Your task to perform on an android device: set default search engine in the chrome app Image 0: 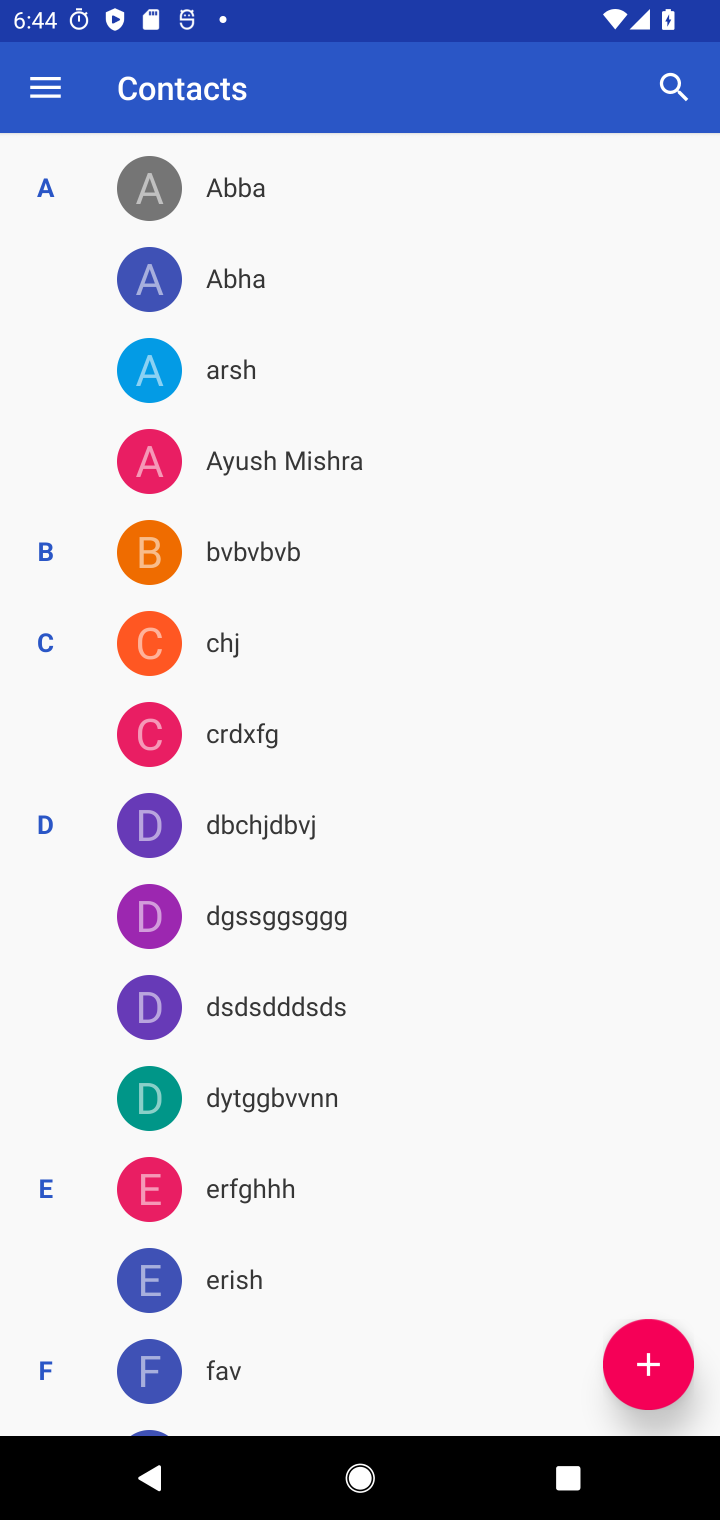
Step 0: press home button
Your task to perform on an android device: set default search engine in the chrome app Image 1: 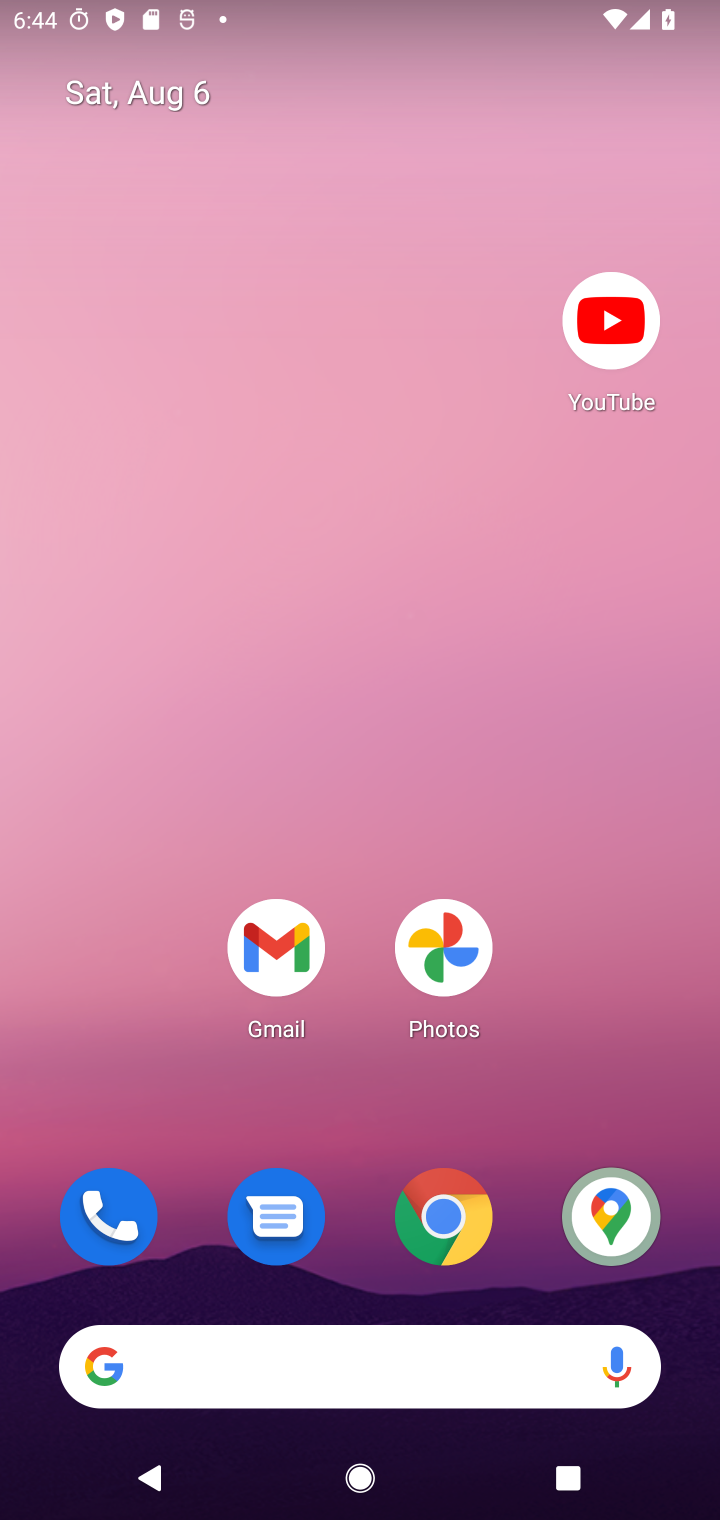
Step 1: drag from (510, 498) to (337, 28)
Your task to perform on an android device: set default search engine in the chrome app Image 2: 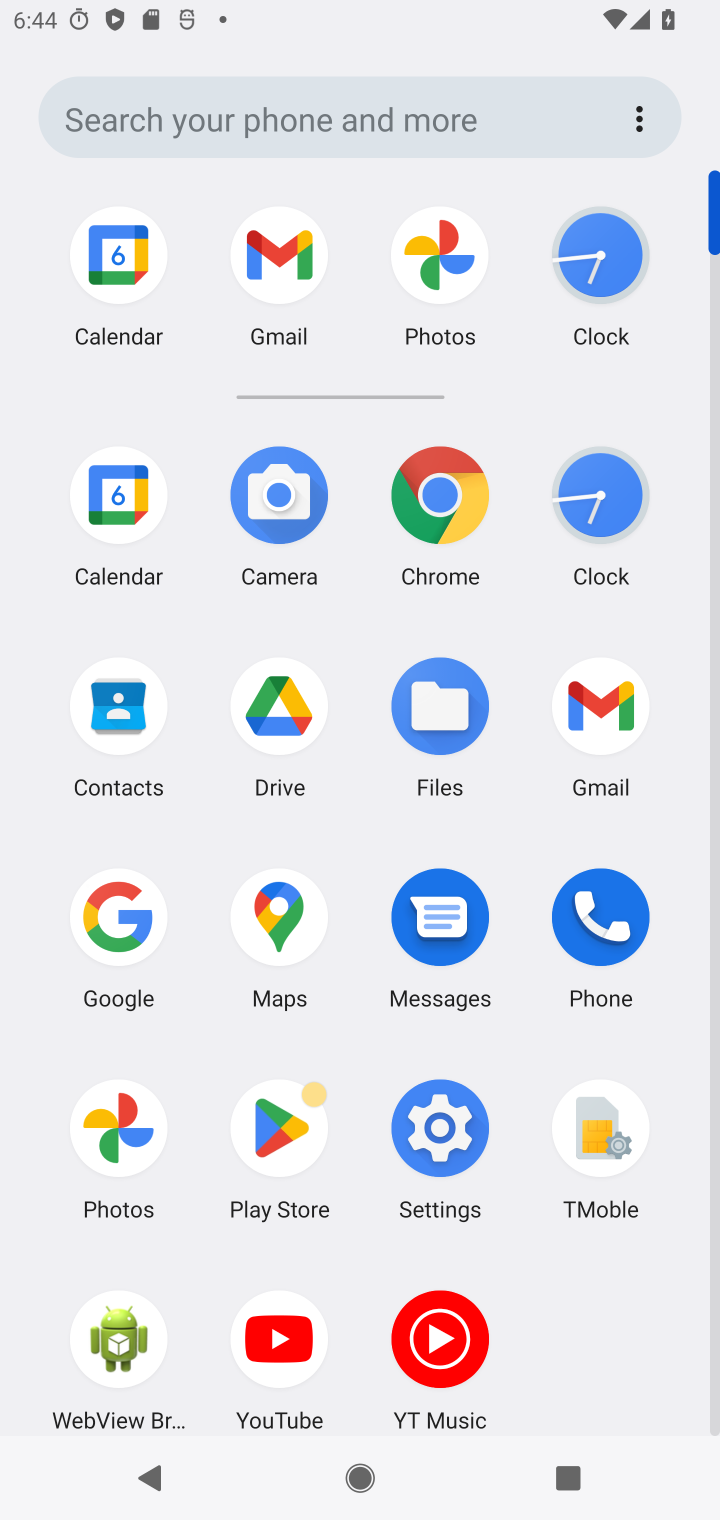
Step 2: click (427, 495)
Your task to perform on an android device: set default search engine in the chrome app Image 3: 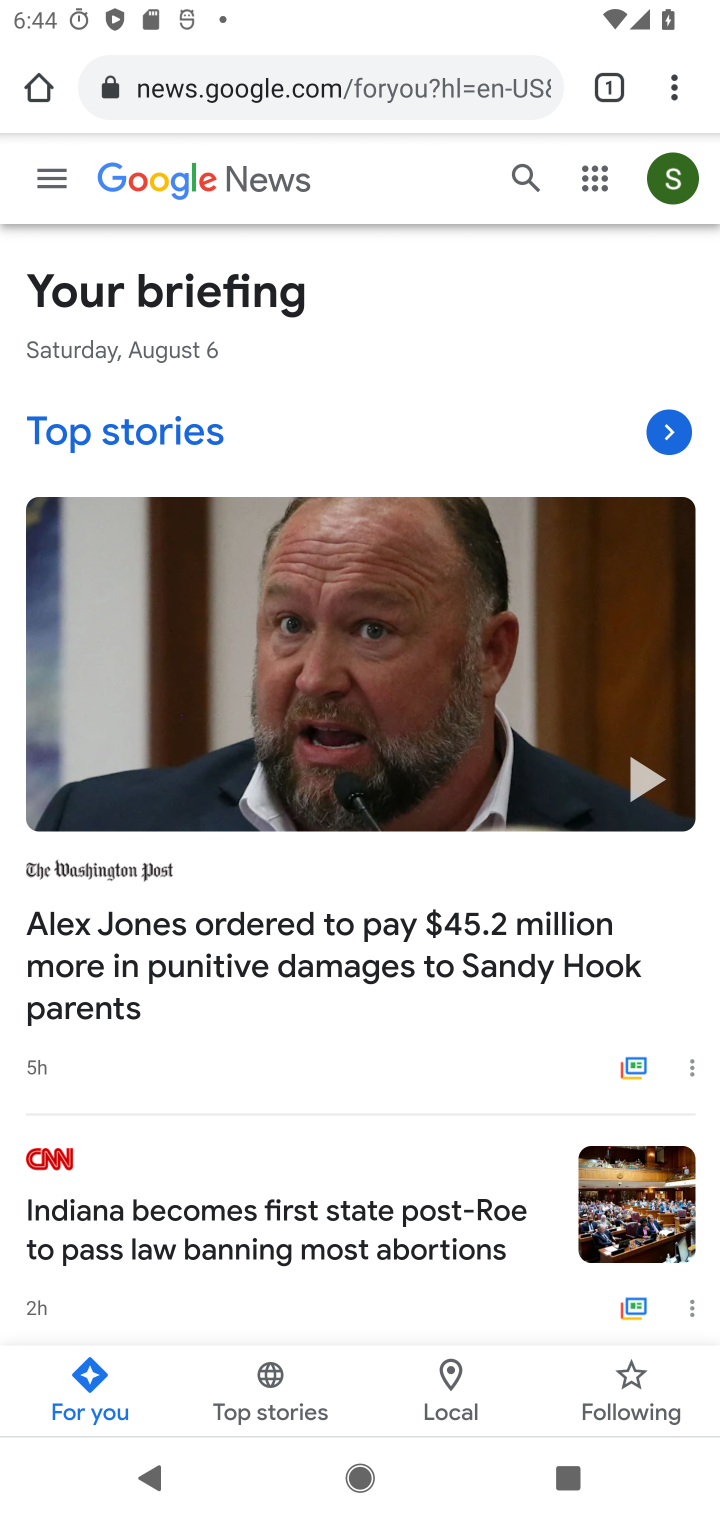
Step 3: drag from (671, 93) to (457, 1191)
Your task to perform on an android device: set default search engine in the chrome app Image 4: 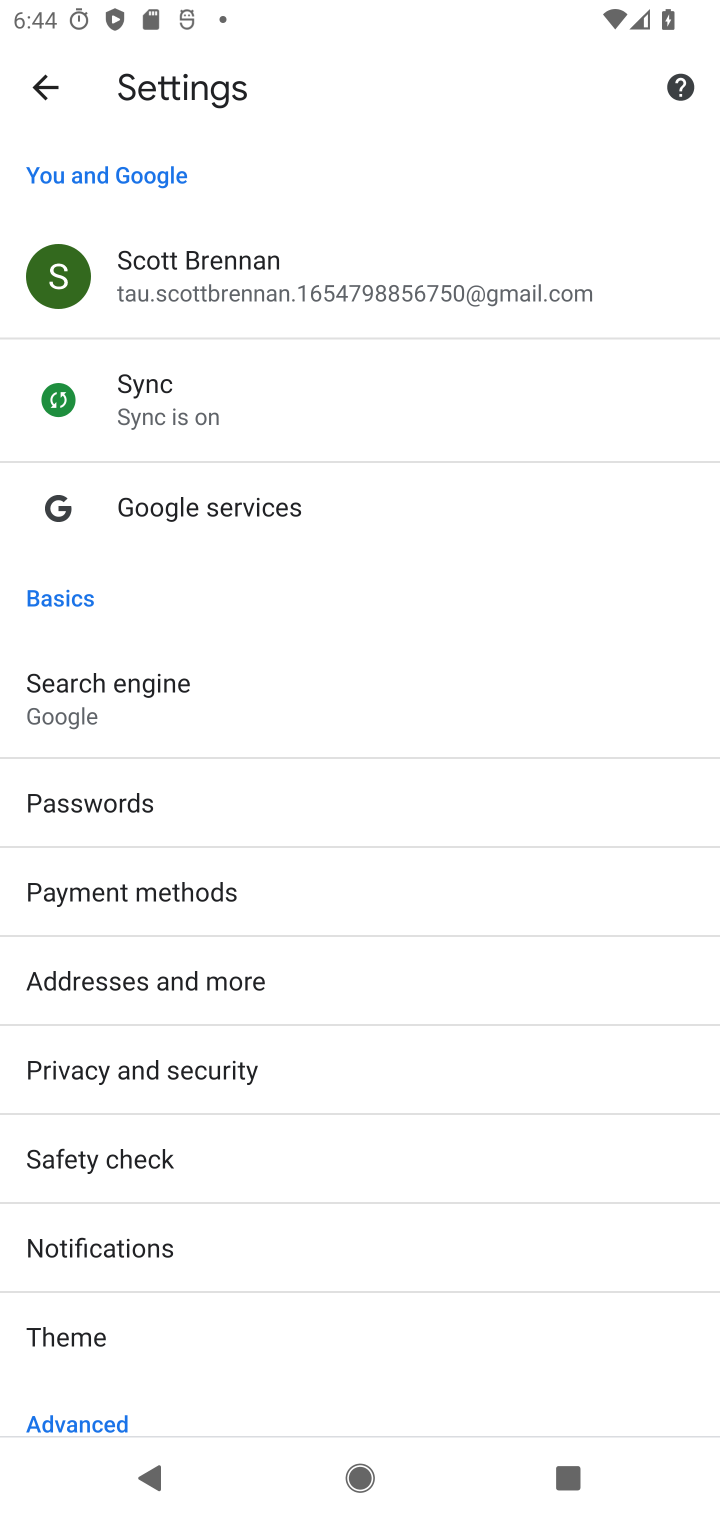
Step 4: click (106, 691)
Your task to perform on an android device: set default search engine in the chrome app Image 5: 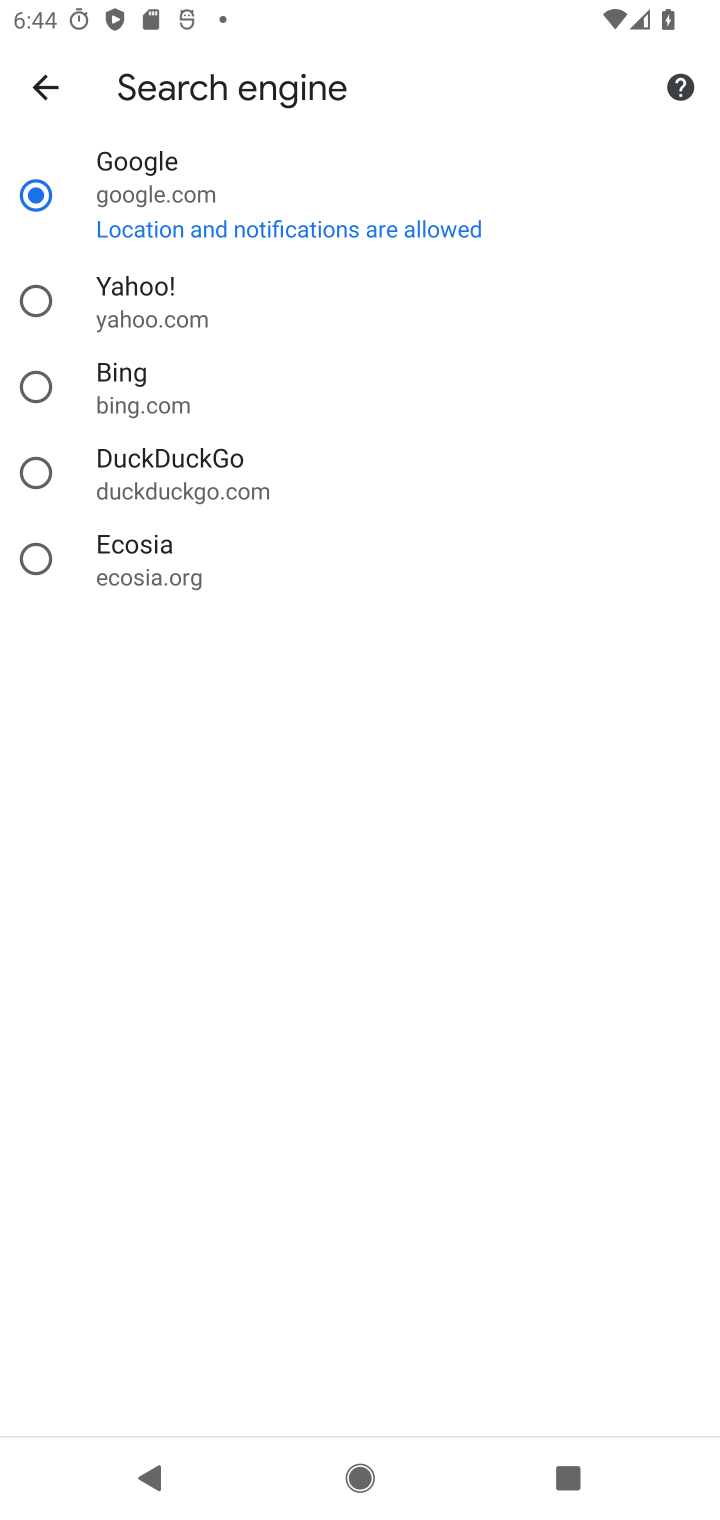
Step 5: task complete